Your task to perform on an android device: remove spam from my inbox in the gmail app Image 0: 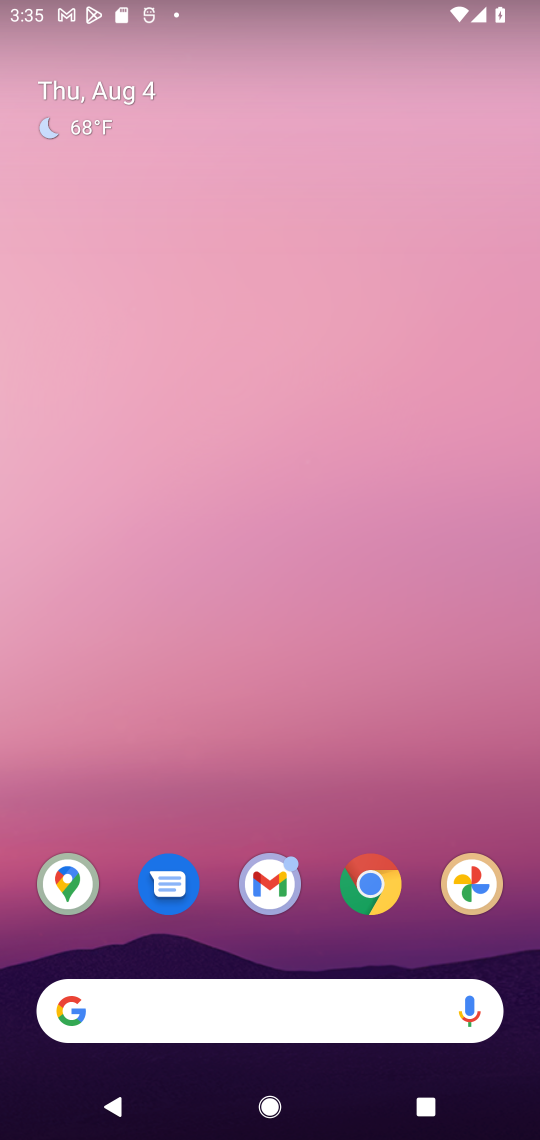
Step 0: click (285, 890)
Your task to perform on an android device: remove spam from my inbox in the gmail app Image 1: 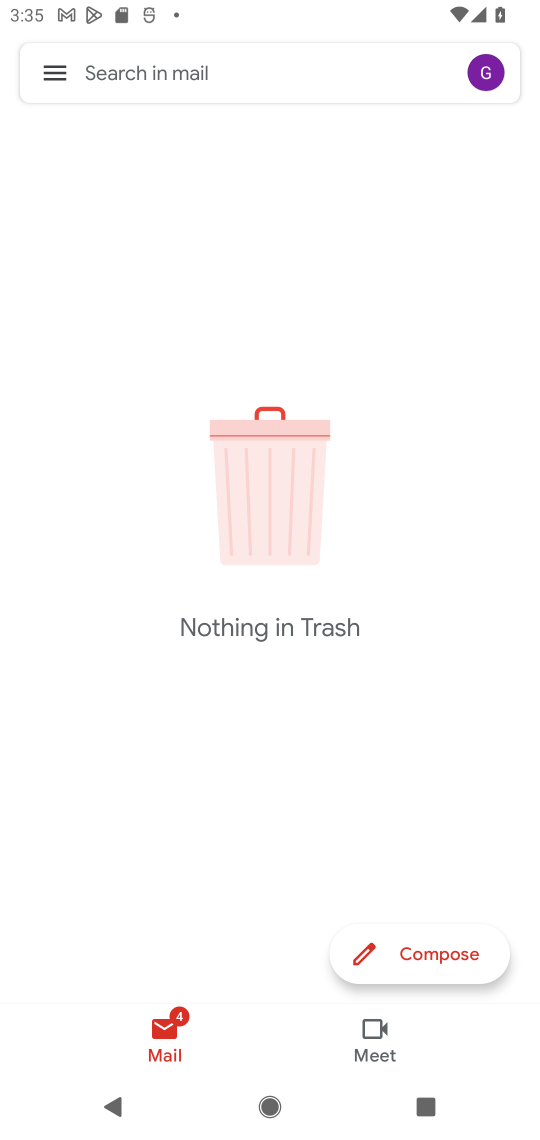
Step 1: task complete